Your task to perform on an android device: Is it going to rain tomorrow? Image 0: 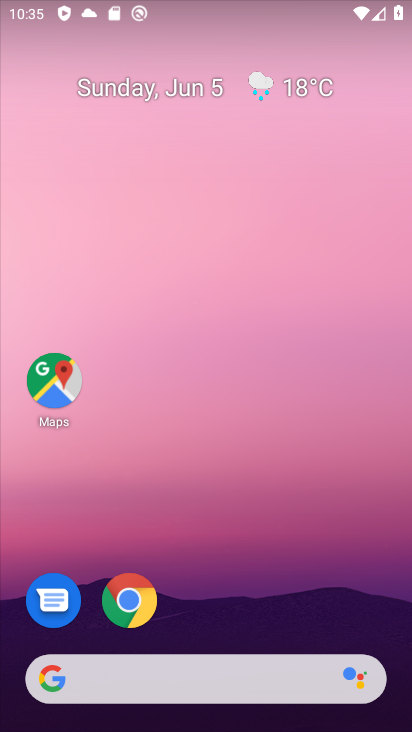
Step 0: drag from (187, 620) to (221, 128)
Your task to perform on an android device: Is it going to rain tomorrow? Image 1: 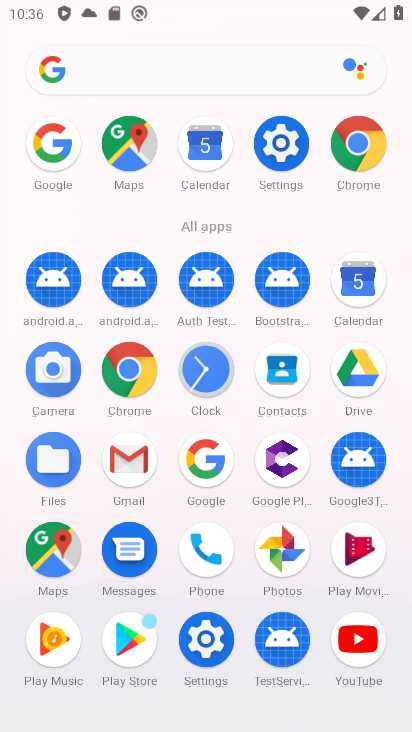
Step 1: click (215, 478)
Your task to perform on an android device: Is it going to rain tomorrow? Image 2: 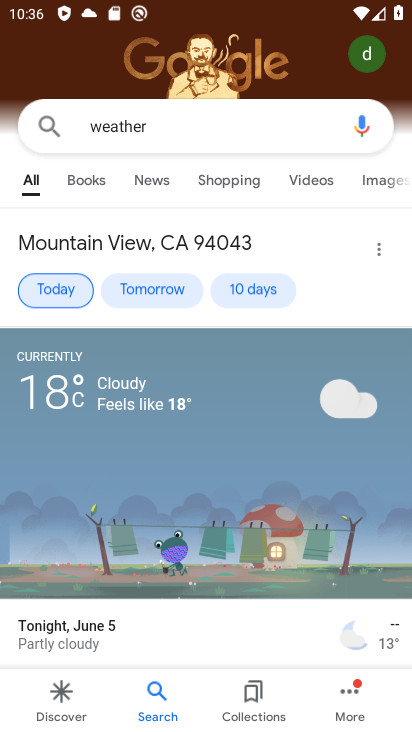
Step 2: click (174, 295)
Your task to perform on an android device: Is it going to rain tomorrow? Image 3: 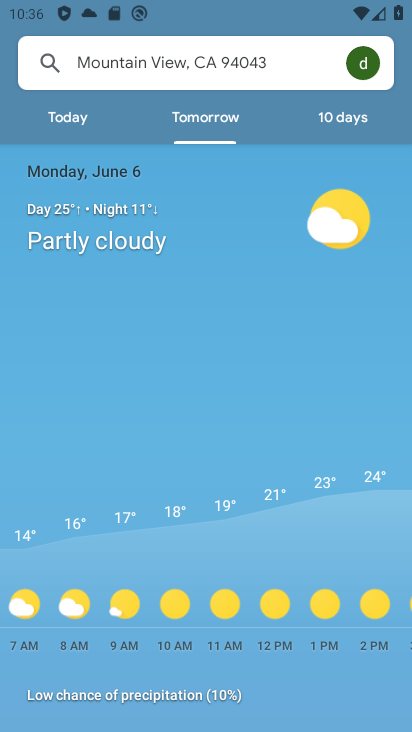
Step 3: task complete